Your task to perform on an android device: remove spam from my inbox in the gmail app Image 0: 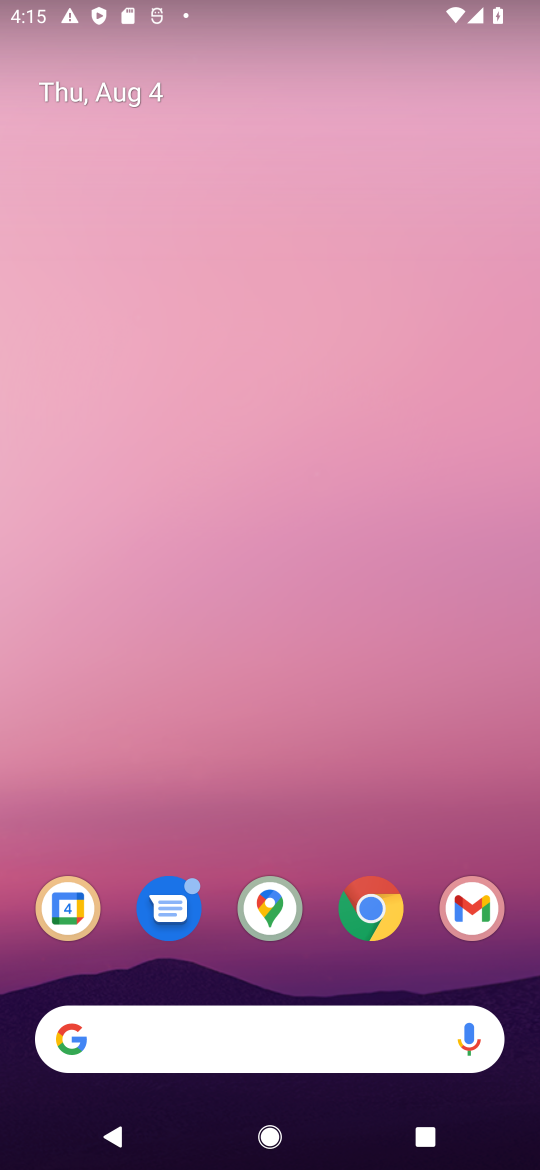
Step 0: drag from (163, 932) to (283, 93)
Your task to perform on an android device: remove spam from my inbox in the gmail app Image 1: 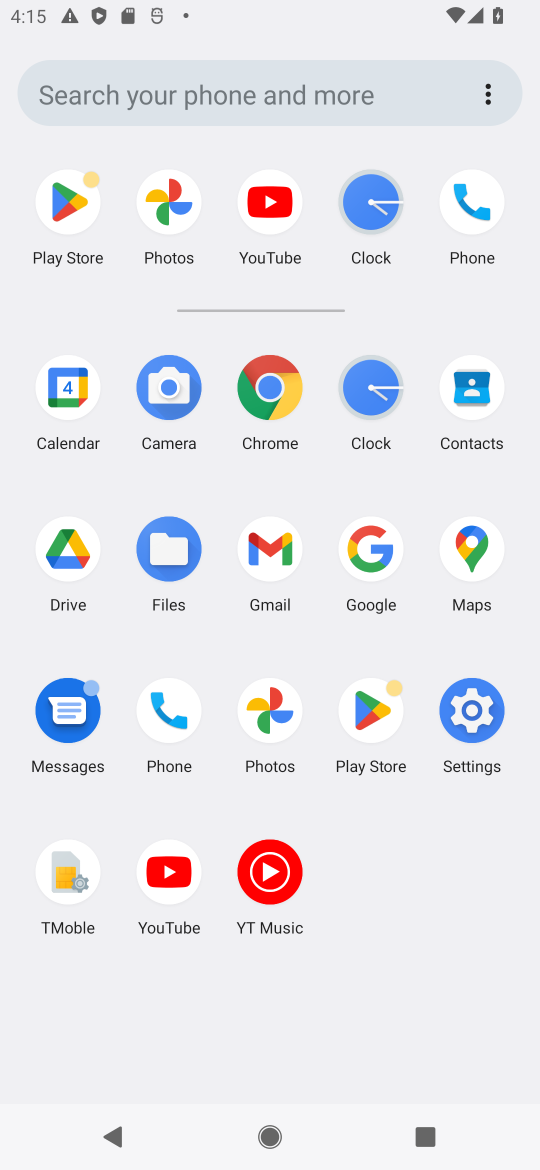
Step 1: click (248, 531)
Your task to perform on an android device: remove spam from my inbox in the gmail app Image 2: 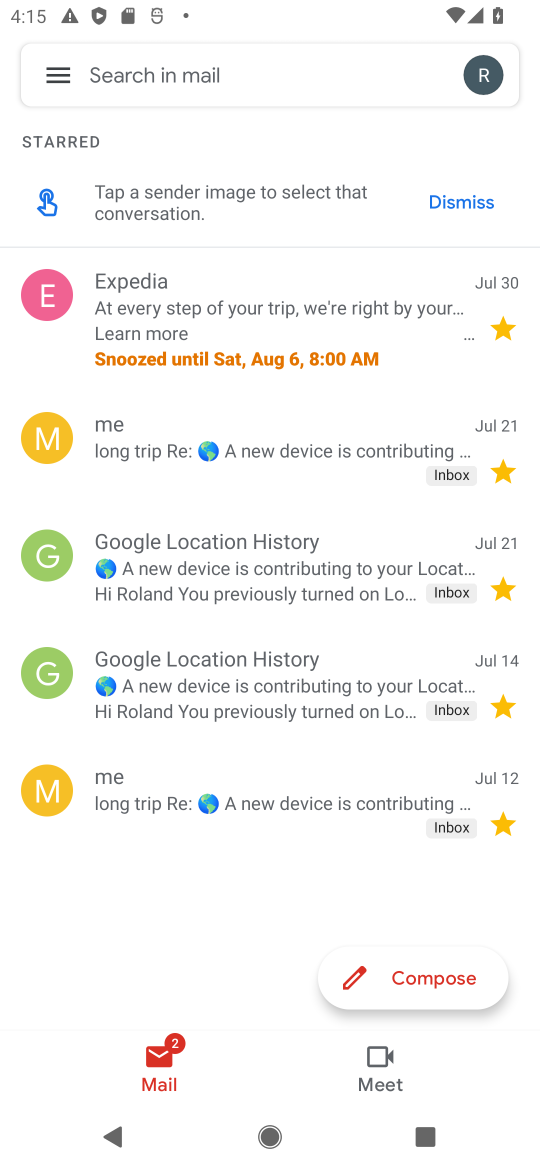
Step 2: click (67, 66)
Your task to perform on an android device: remove spam from my inbox in the gmail app Image 3: 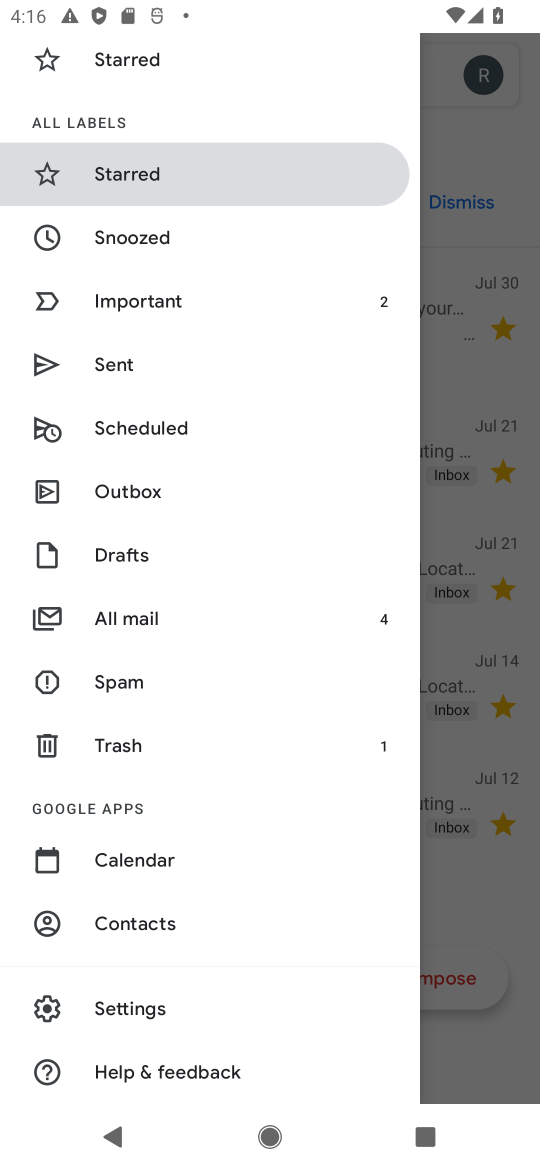
Step 3: click (140, 684)
Your task to perform on an android device: remove spam from my inbox in the gmail app Image 4: 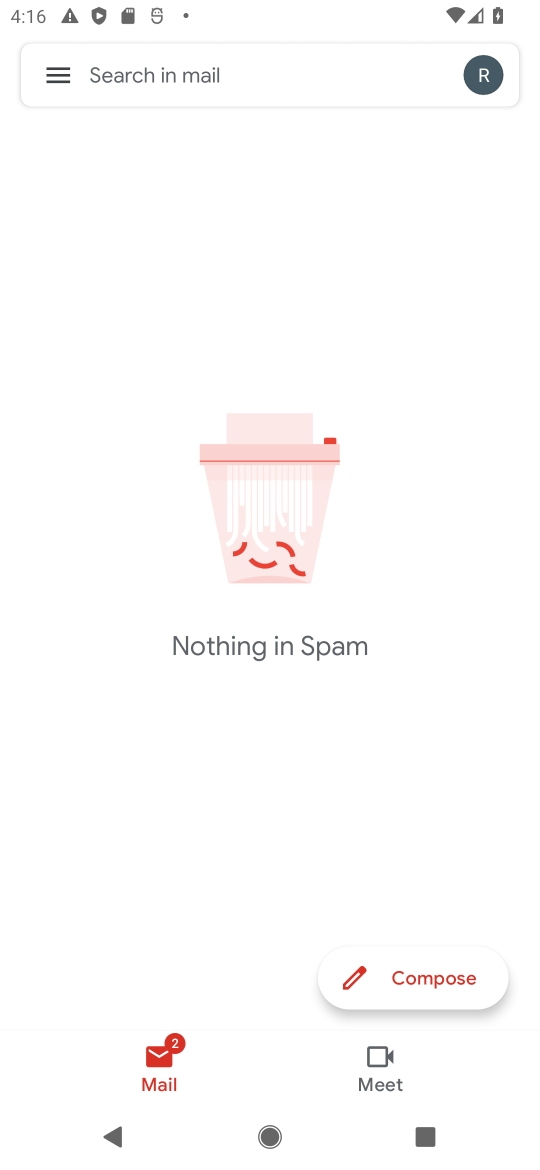
Step 4: task complete